Your task to perform on an android device: change the clock display to analog Image 0: 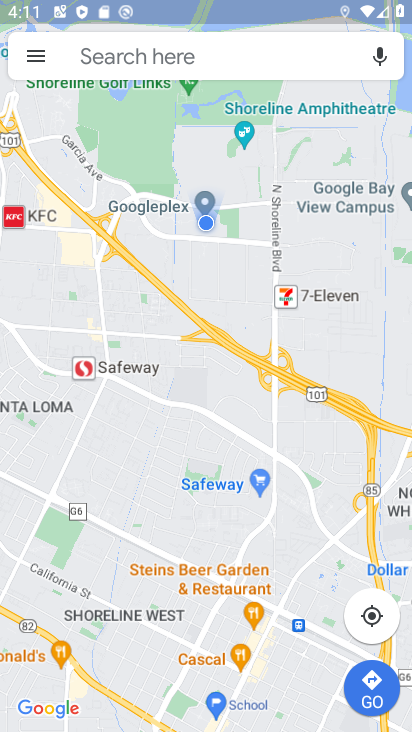
Step 0: press home button
Your task to perform on an android device: change the clock display to analog Image 1: 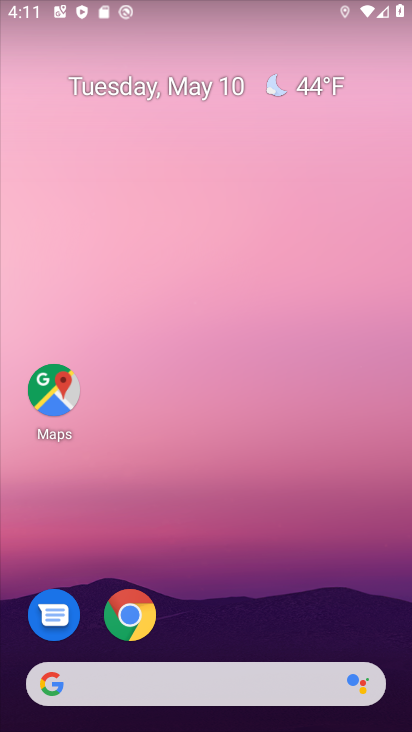
Step 1: drag from (187, 714) to (188, 103)
Your task to perform on an android device: change the clock display to analog Image 2: 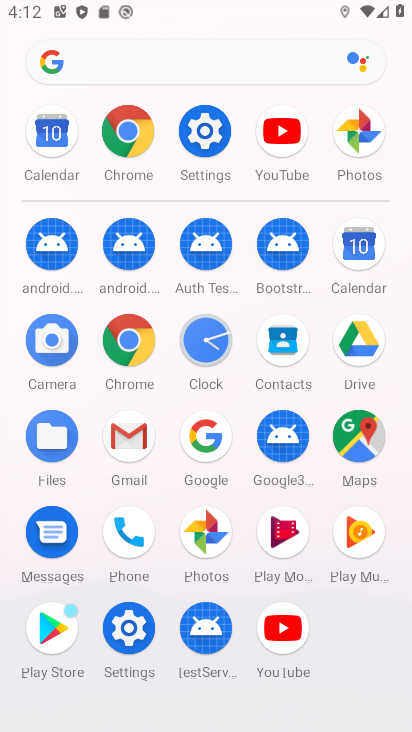
Step 2: click (210, 350)
Your task to perform on an android device: change the clock display to analog Image 3: 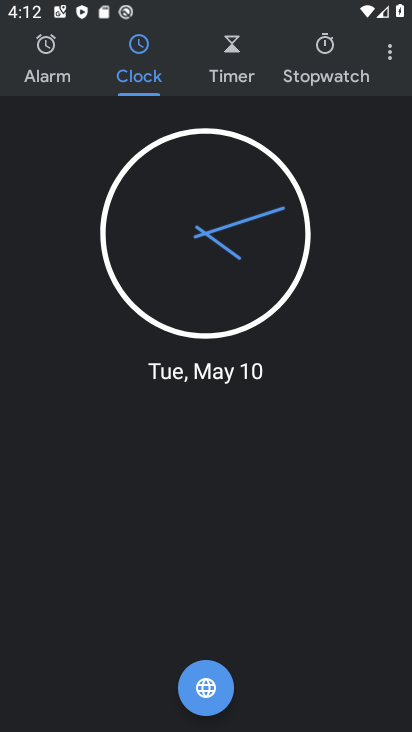
Step 3: click (391, 56)
Your task to perform on an android device: change the clock display to analog Image 4: 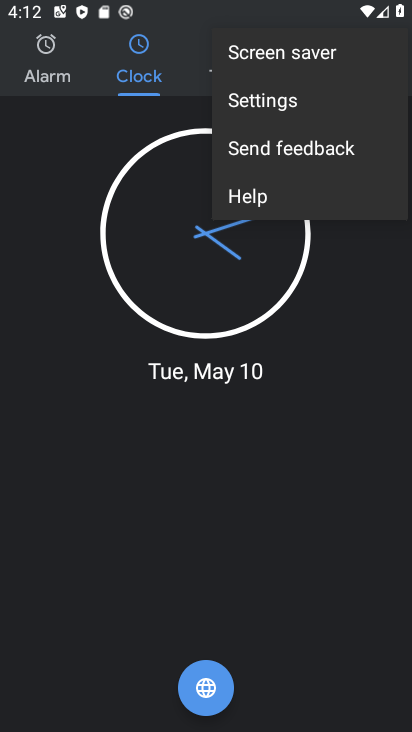
Step 4: click (264, 97)
Your task to perform on an android device: change the clock display to analog Image 5: 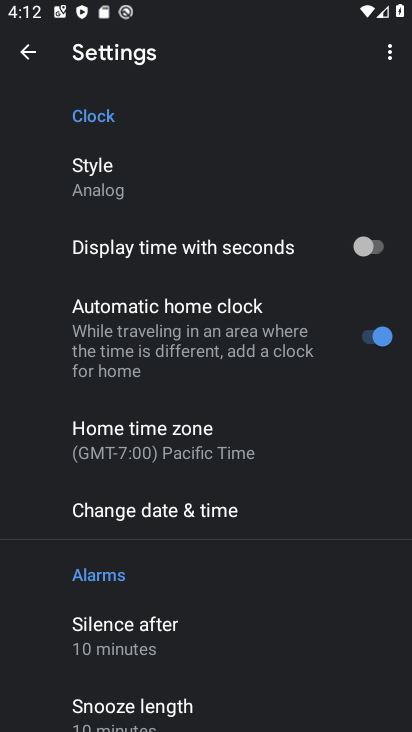
Step 5: task complete